Your task to perform on an android device: turn on javascript in the chrome app Image 0: 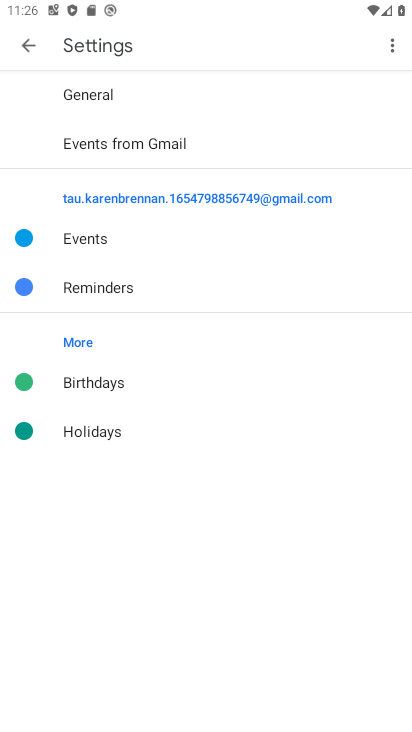
Step 0: press home button
Your task to perform on an android device: turn on javascript in the chrome app Image 1: 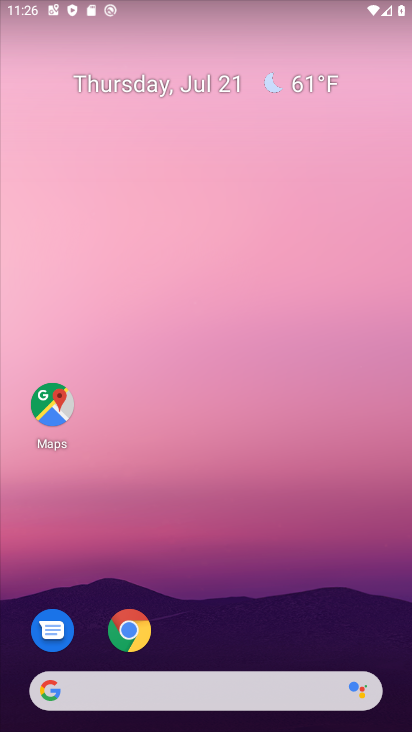
Step 1: click (136, 638)
Your task to perform on an android device: turn on javascript in the chrome app Image 2: 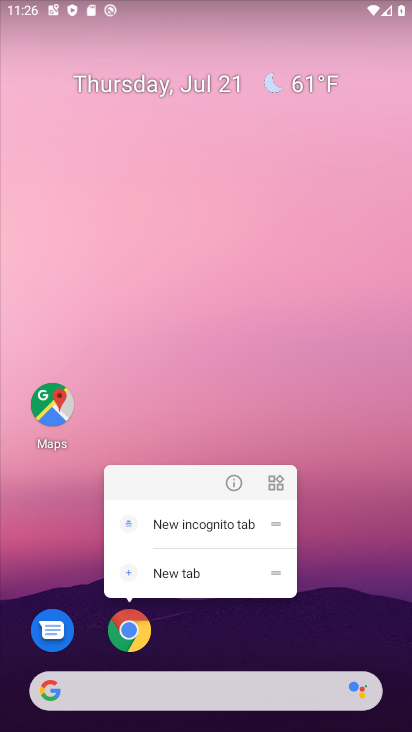
Step 2: click (126, 627)
Your task to perform on an android device: turn on javascript in the chrome app Image 3: 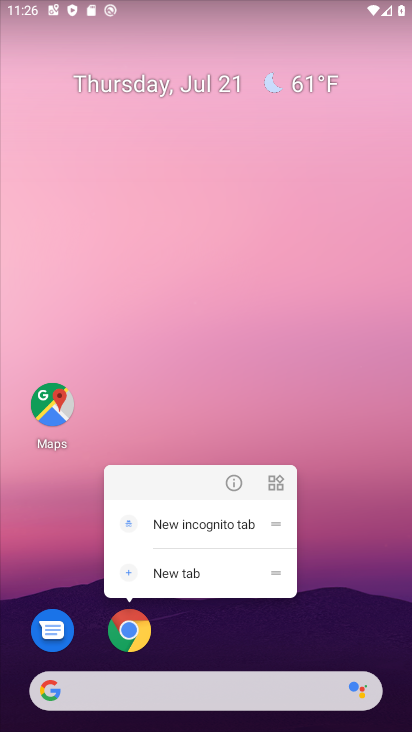
Step 3: click (128, 636)
Your task to perform on an android device: turn on javascript in the chrome app Image 4: 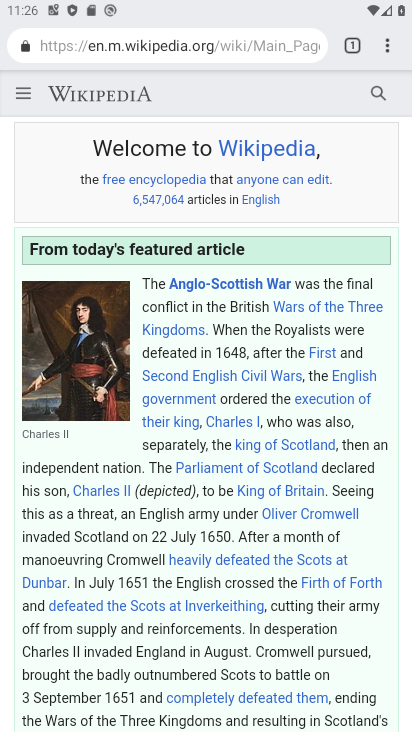
Step 4: click (374, 47)
Your task to perform on an android device: turn on javascript in the chrome app Image 5: 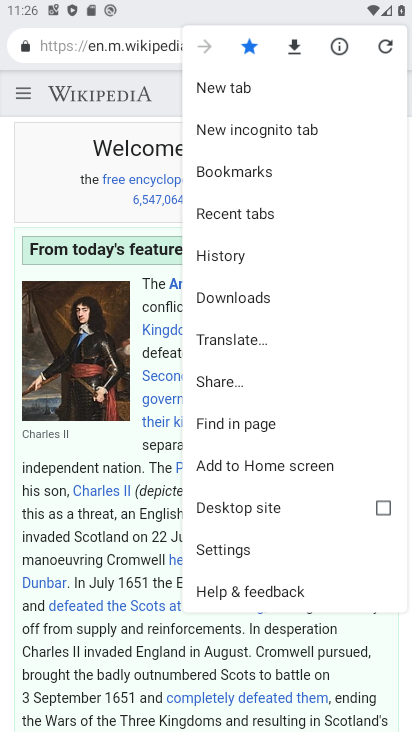
Step 5: click (233, 553)
Your task to perform on an android device: turn on javascript in the chrome app Image 6: 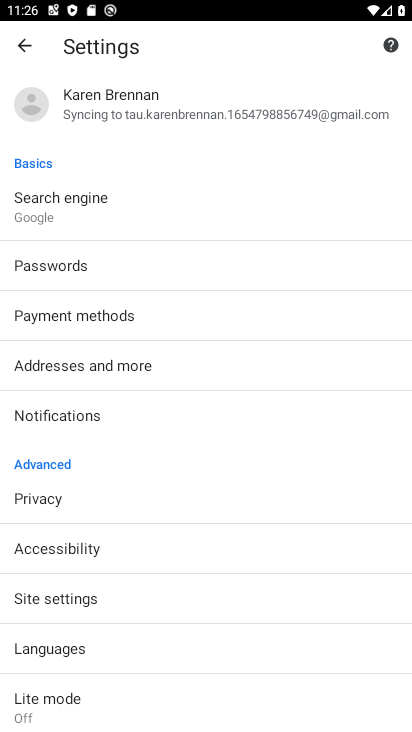
Step 6: click (53, 594)
Your task to perform on an android device: turn on javascript in the chrome app Image 7: 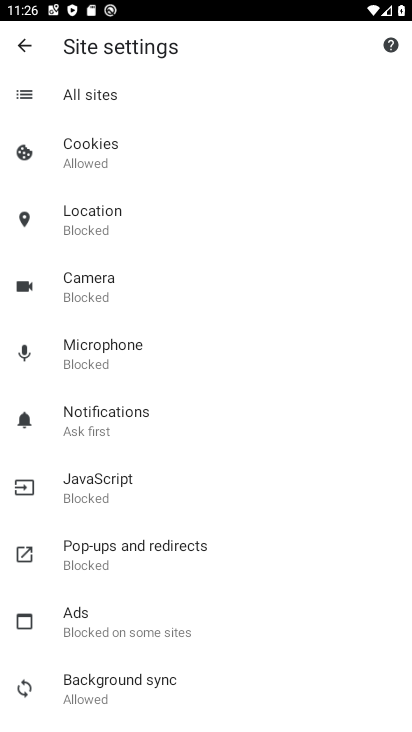
Step 7: click (121, 496)
Your task to perform on an android device: turn on javascript in the chrome app Image 8: 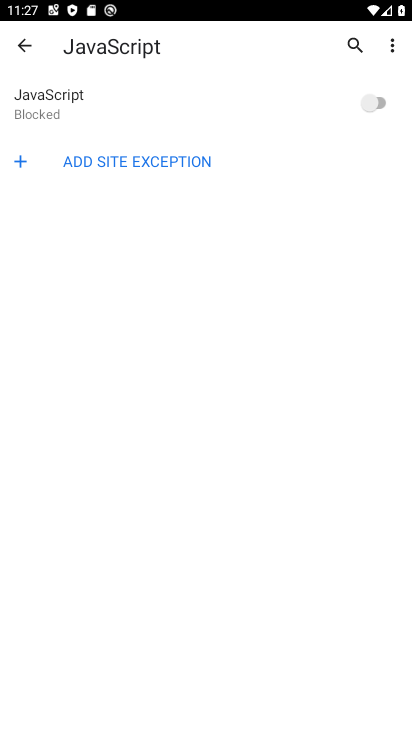
Step 8: click (374, 102)
Your task to perform on an android device: turn on javascript in the chrome app Image 9: 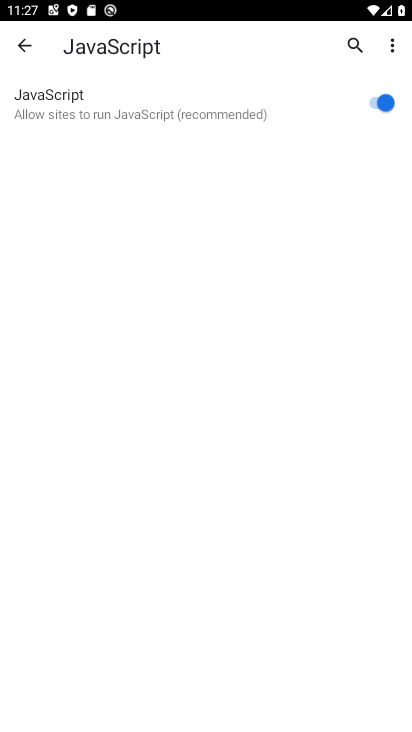
Step 9: task complete